Your task to perform on an android device: turn smart compose on in the gmail app Image 0: 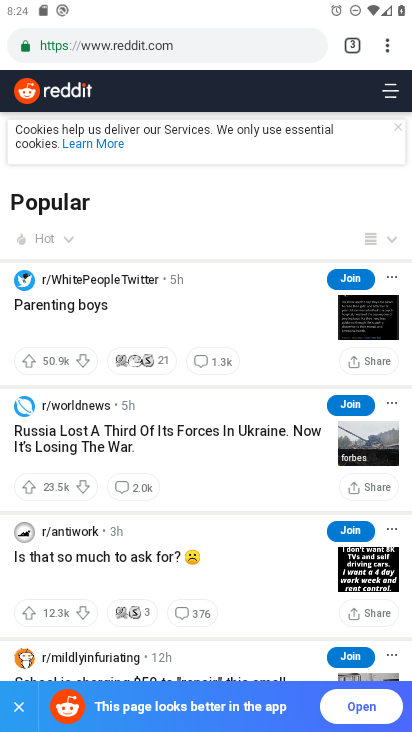
Step 0: press home button
Your task to perform on an android device: turn smart compose on in the gmail app Image 1: 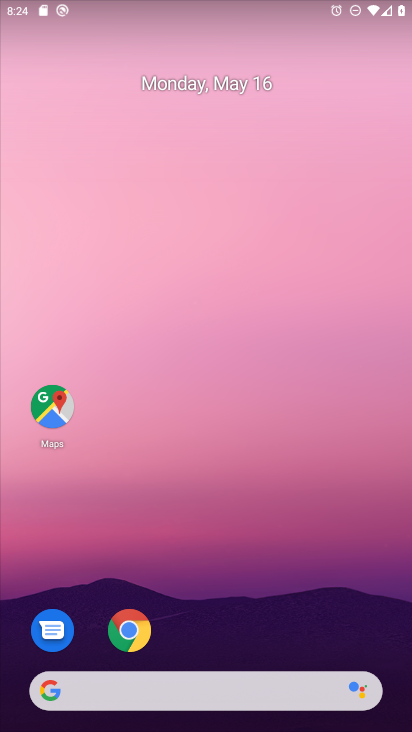
Step 1: drag from (198, 625) to (138, 245)
Your task to perform on an android device: turn smart compose on in the gmail app Image 2: 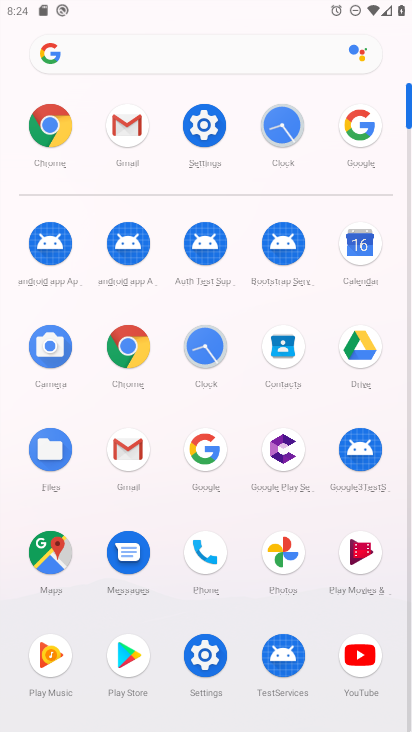
Step 2: click (112, 135)
Your task to perform on an android device: turn smart compose on in the gmail app Image 3: 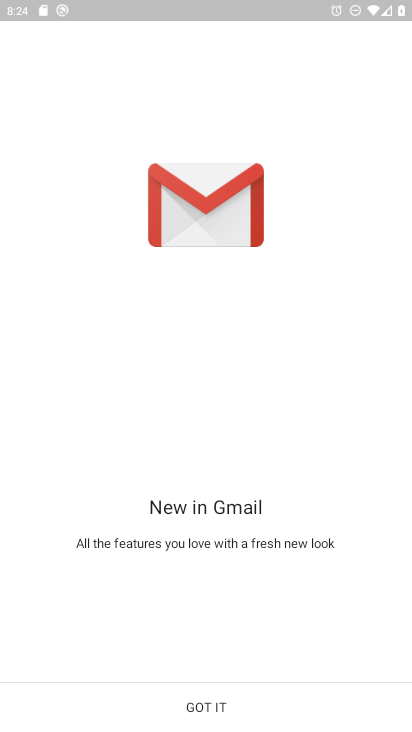
Step 3: click (237, 709)
Your task to perform on an android device: turn smart compose on in the gmail app Image 4: 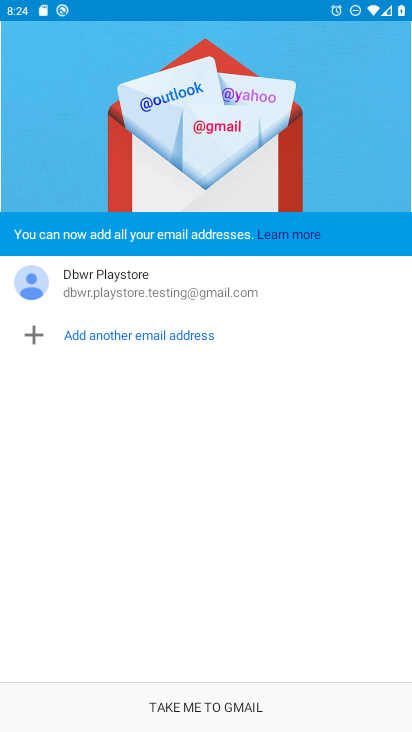
Step 4: drag from (1, 158) to (96, 140)
Your task to perform on an android device: turn smart compose on in the gmail app Image 5: 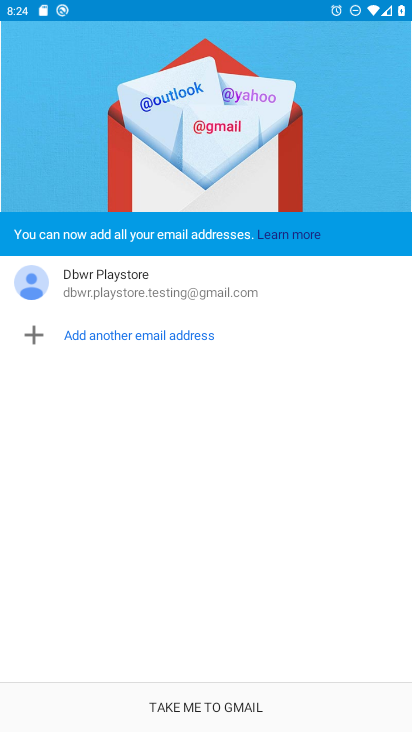
Step 5: click (196, 697)
Your task to perform on an android device: turn smart compose on in the gmail app Image 6: 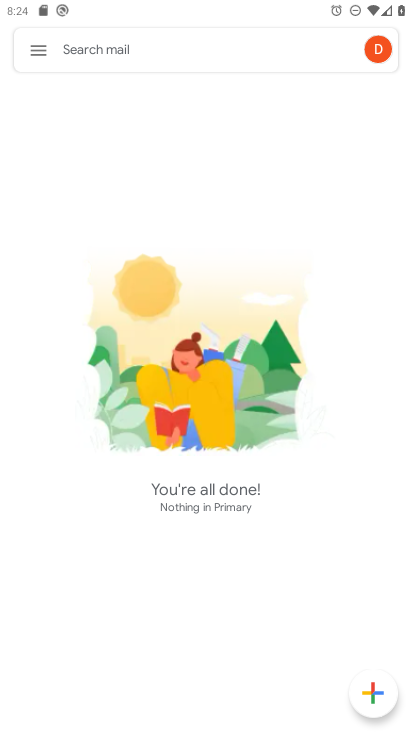
Step 6: click (24, 38)
Your task to perform on an android device: turn smart compose on in the gmail app Image 7: 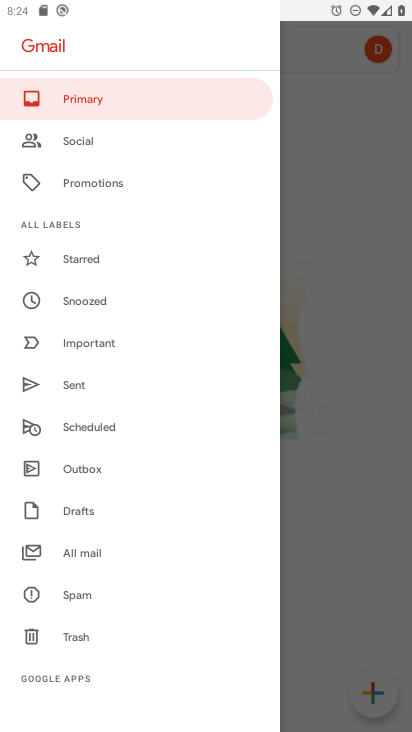
Step 7: drag from (126, 638) to (65, 320)
Your task to perform on an android device: turn smart compose on in the gmail app Image 8: 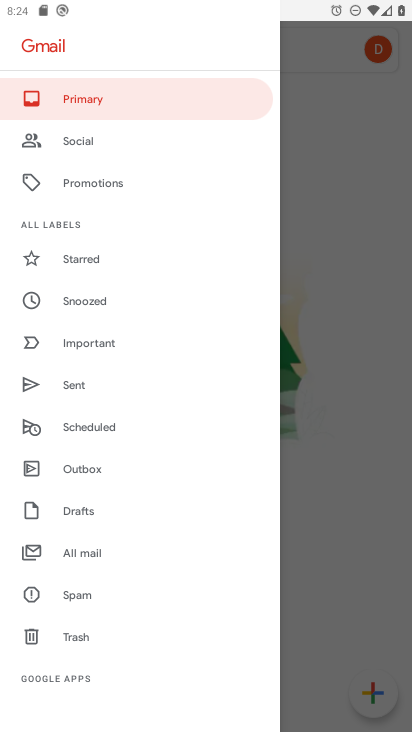
Step 8: drag from (141, 274) to (146, 588)
Your task to perform on an android device: turn smart compose on in the gmail app Image 9: 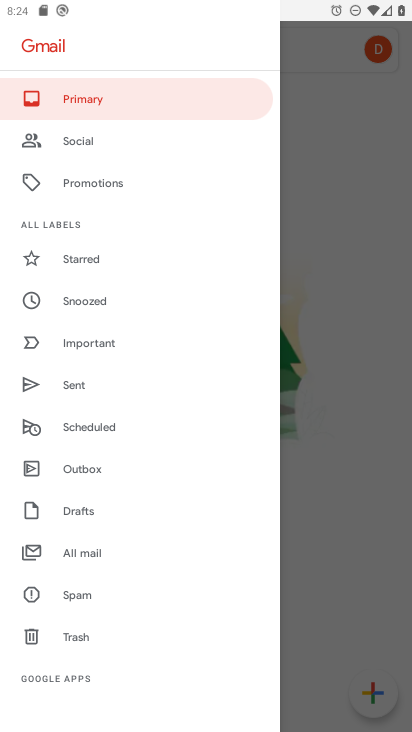
Step 9: drag from (151, 654) to (150, 360)
Your task to perform on an android device: turn smart compose on in the gmail app Image 10: 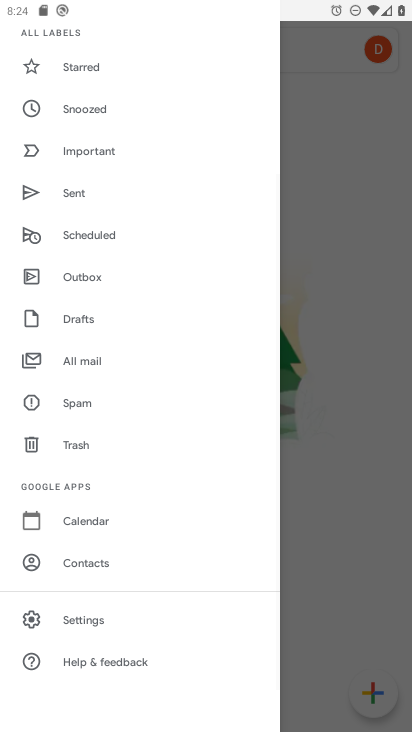
Step 10: click (68, 610)
Your task to perform on an android device: turn smart compose on in the gmail app Image 11: 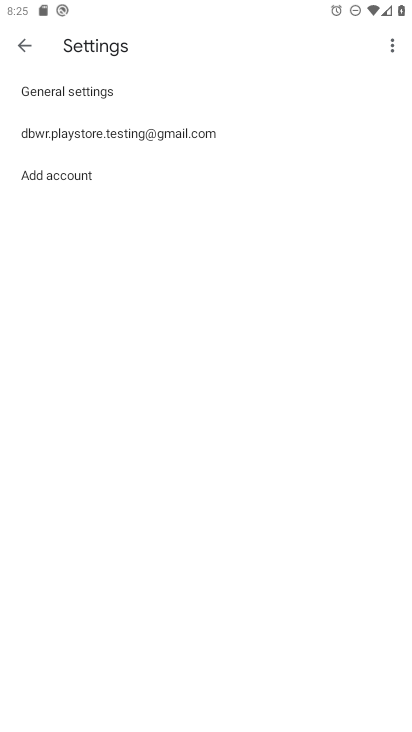
Step 11: task complete